Your task to perform on an android device: Open the map Image 0: 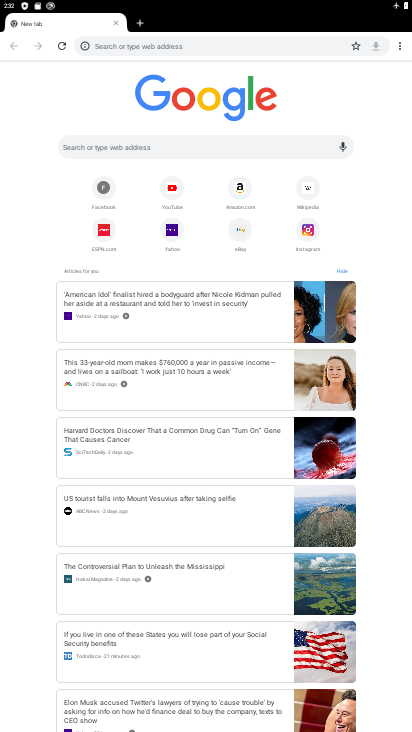
Step 0: press home button
Your task to perform on an android device: Open the map Image 1: 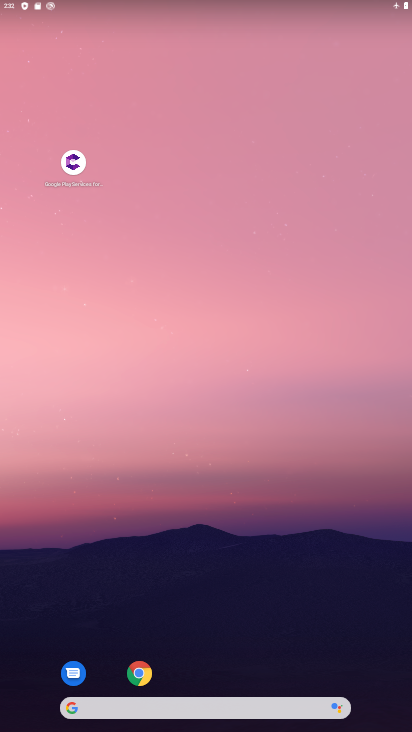
Step 1: drag from (221, 692) to (283, 287)
Your task to perform on an android device: Open the map Image 2: 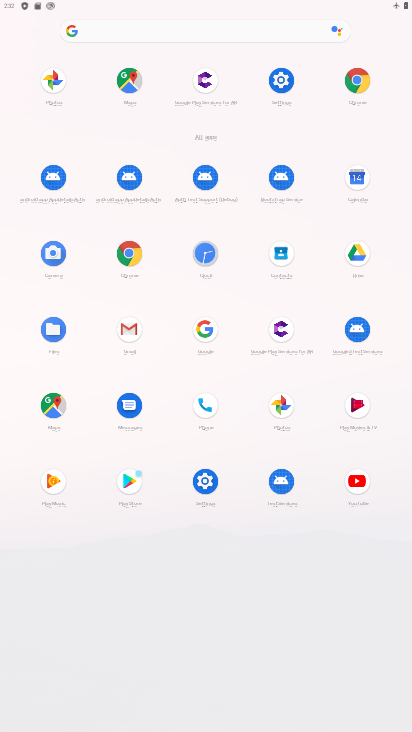
Step 2: click (54, 402)
Your task to perform on an android device: Open the map Image 3: 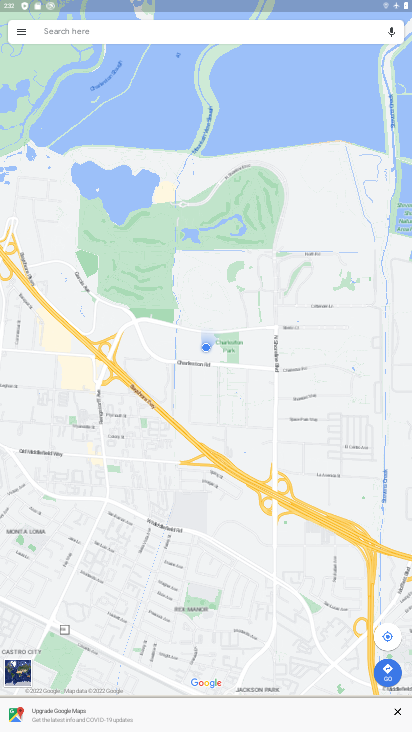
Step 3: task complete